Your task to perform on an android device: Go to Yahoo.com Image 0: 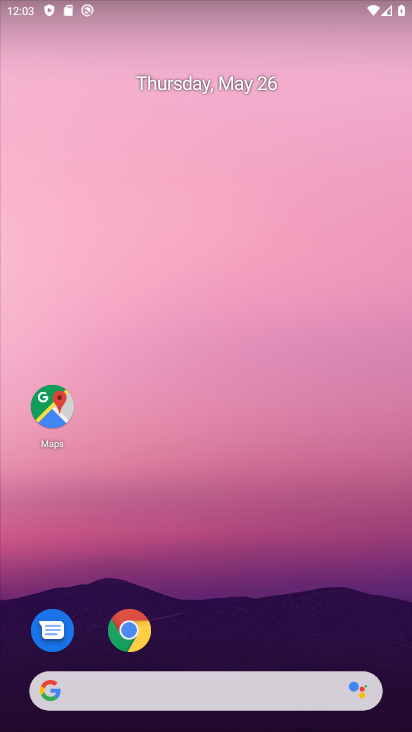
Step 0: drag from (290, 595) to (265, 20)
Your task to perform on an android device: Go to Yahoo.com Image 1: 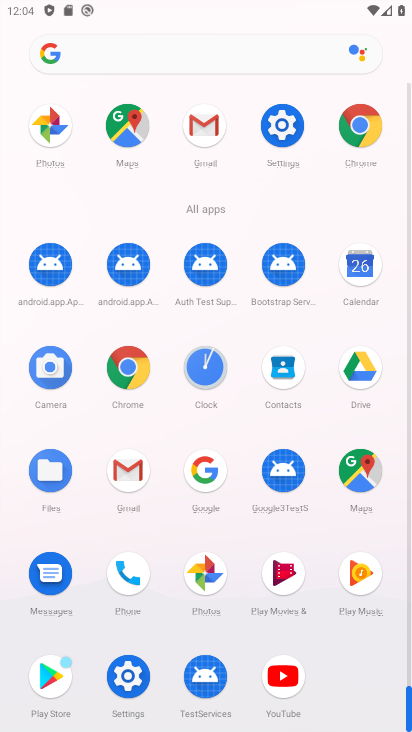
Step 1: click (364, 143)
Your task to perform on an android device: Go to Yahoo.com Image 2: 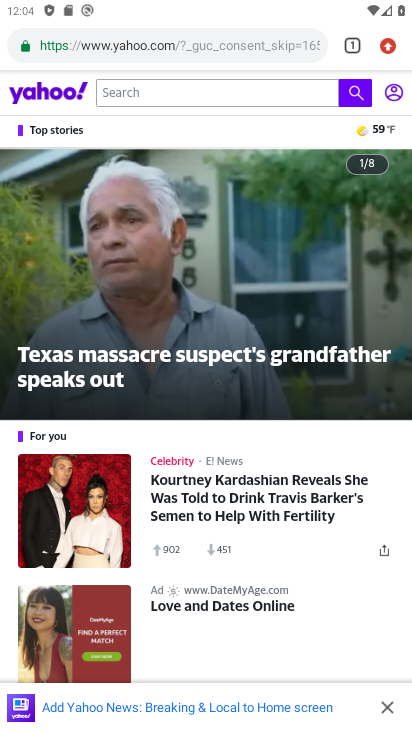
Step 2: task complete